Your task to perform on an android device: turn off location history Image 0: 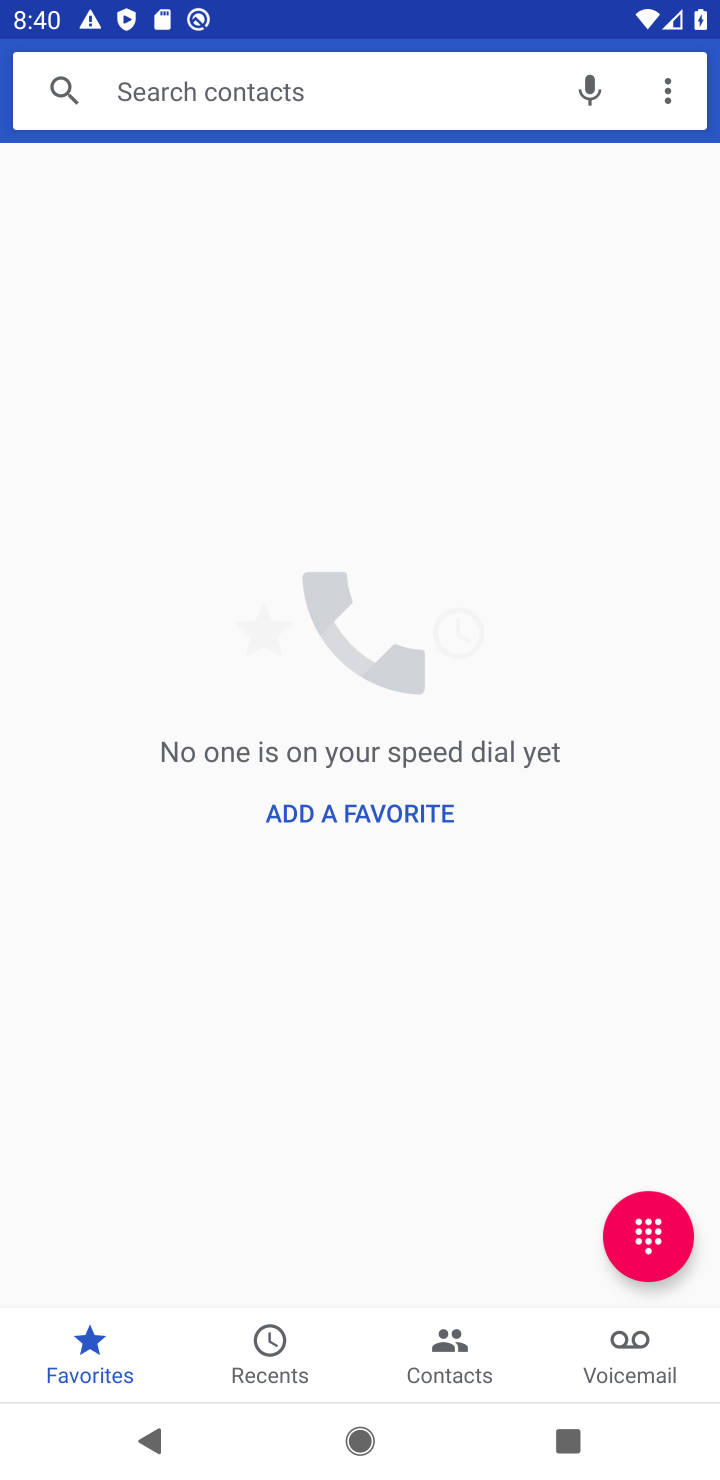
Step 0: press home button
Your task to perform on an android device: turn off location history Image 1: 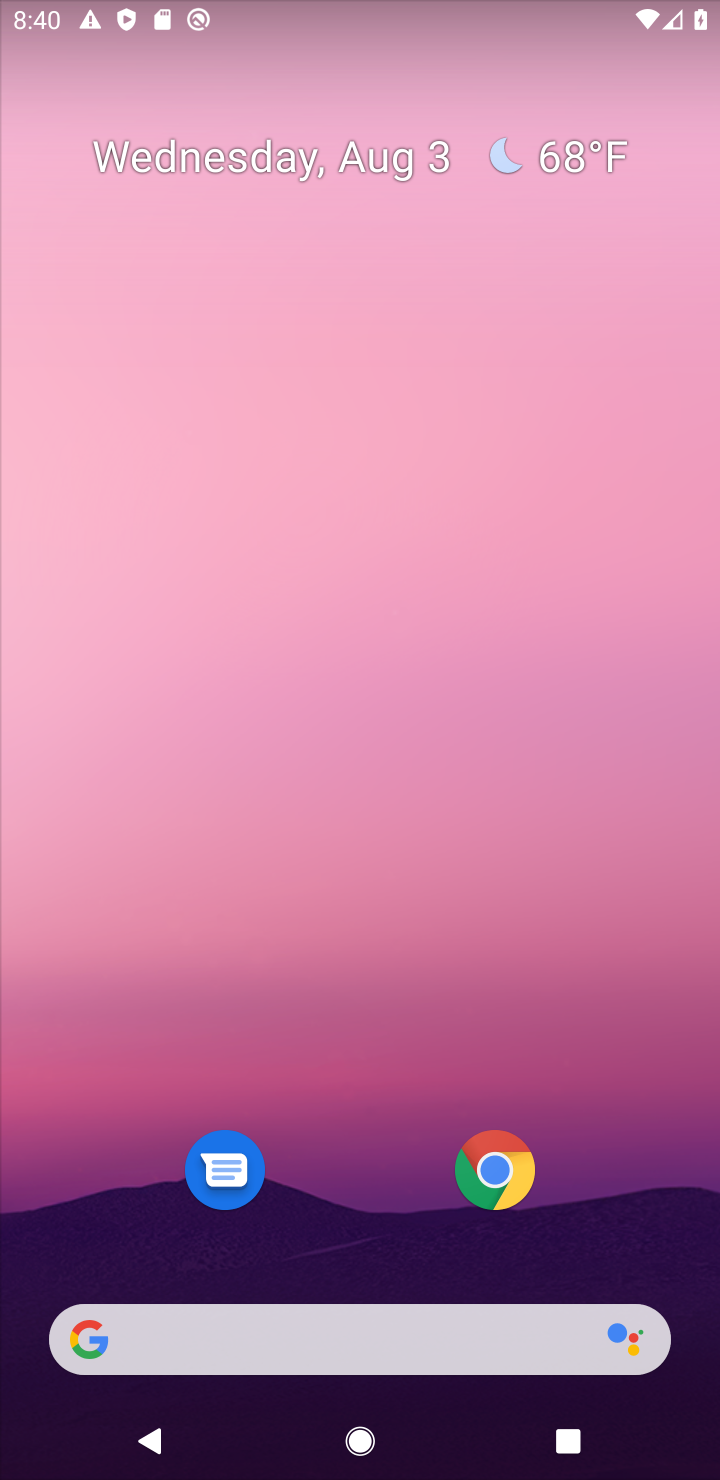
Step 1: drag from (630, 1228) to (576, 480)
Your task to perform on an android device: turn off location history Image 2: 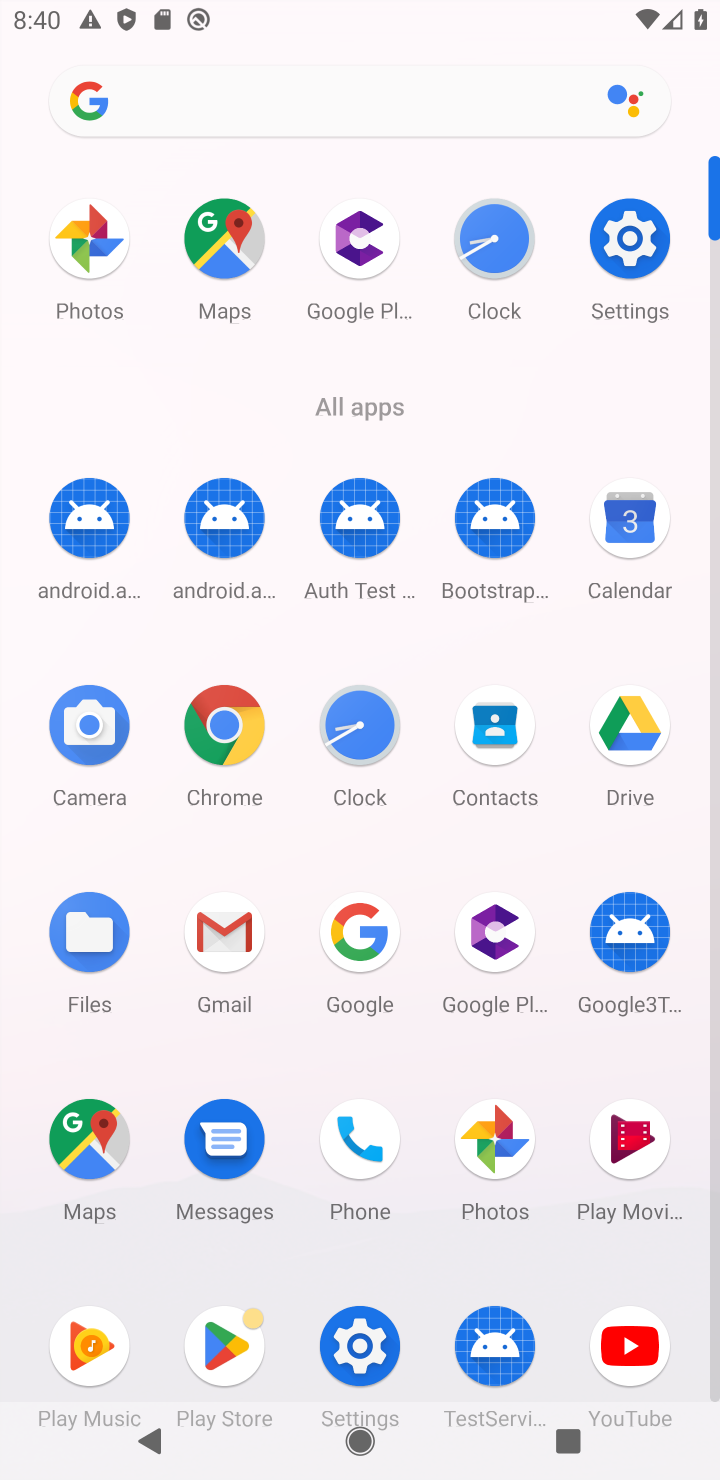
Step 2: click (357, 1341)
Your task to perform on an android device: turn off location history Image 3: 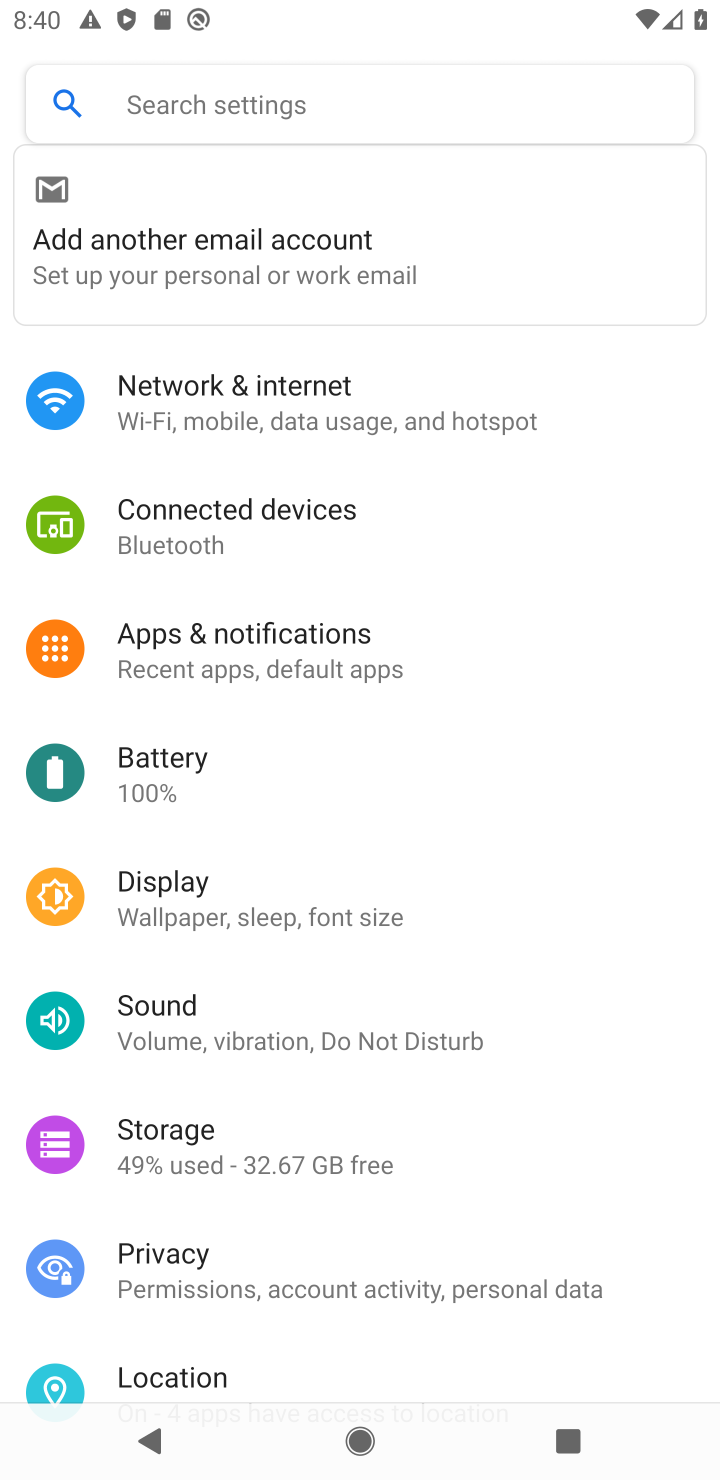
Step 3: drag from (640, 1313) to (582, 557)
Your task to perform on an android device: turn off location history Image 4: 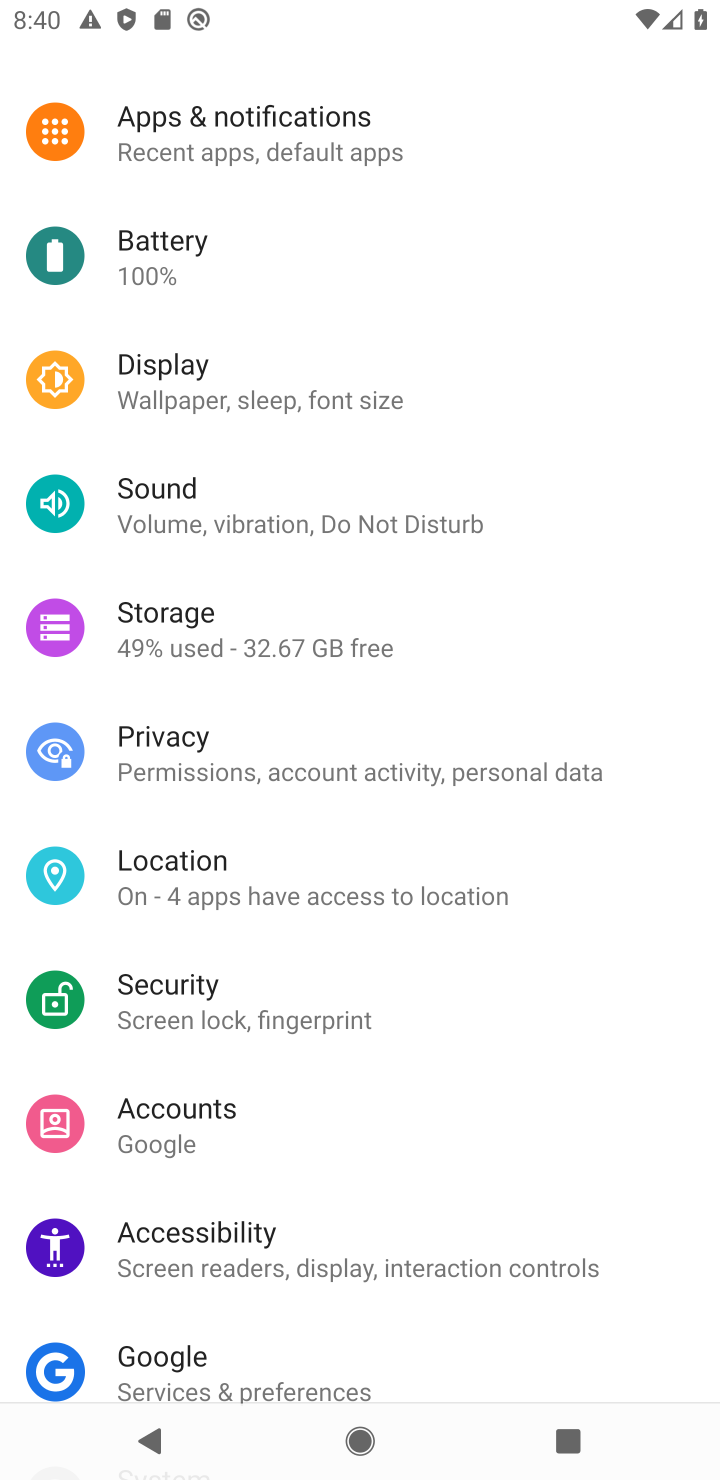
Step 4: click (195, 858)
Your task to perform on an android device: turn off location history Image 5: 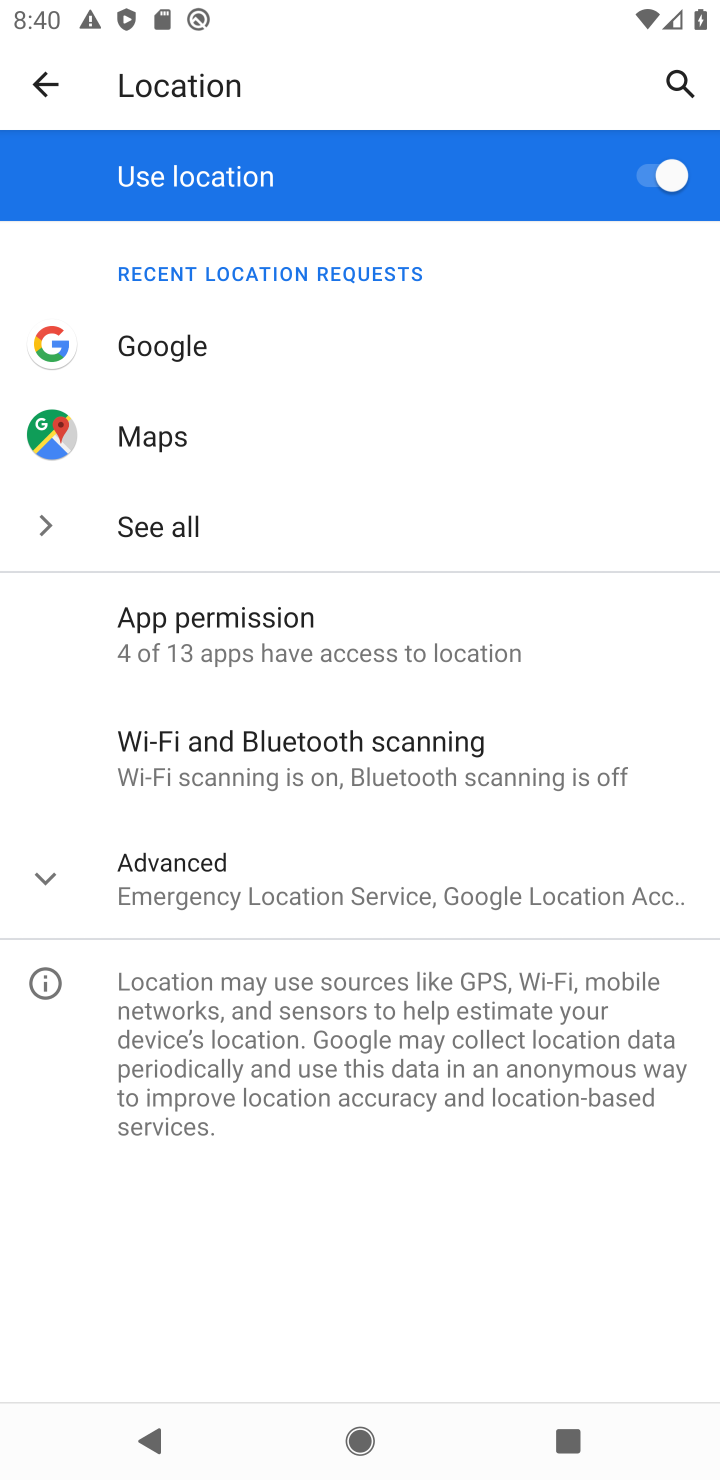
Step 5: click (118, 874)
Your task to perform on an android device: turn off location history Image 6: 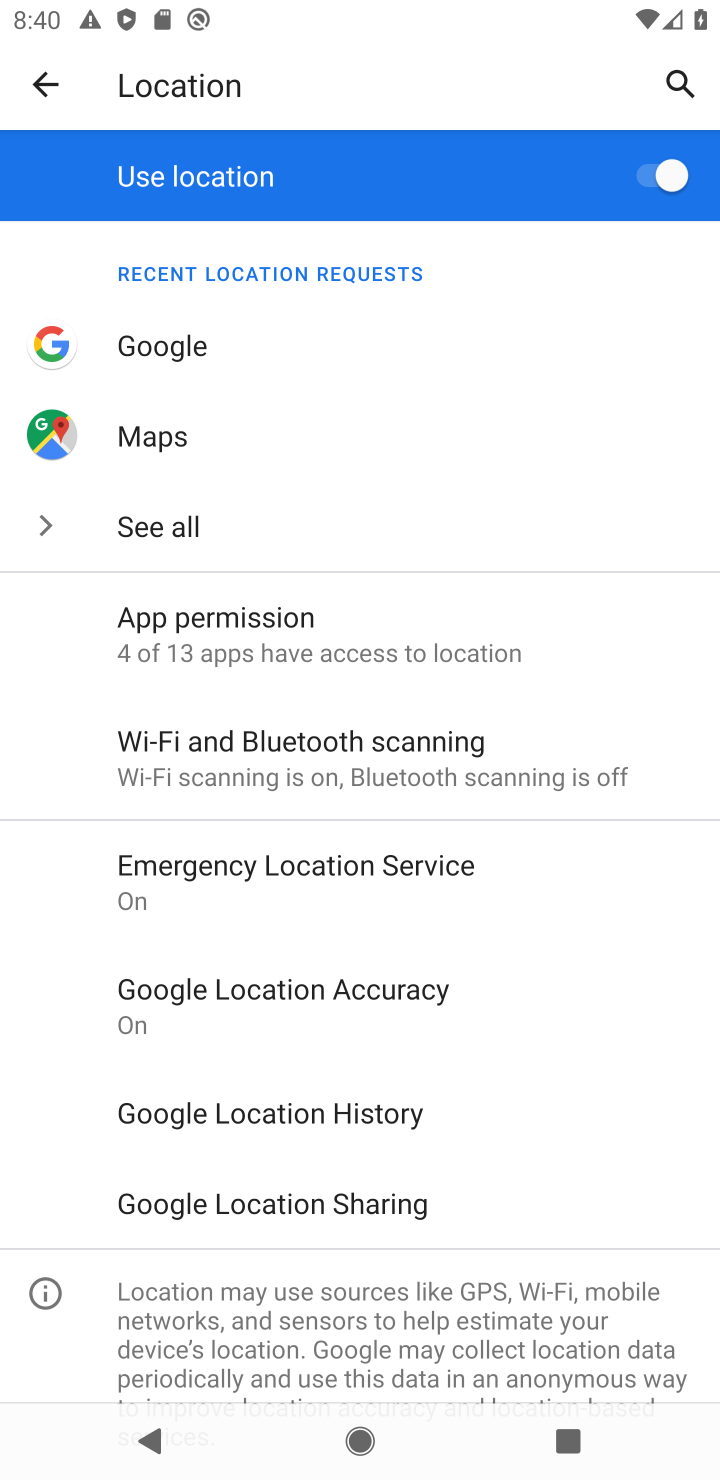
Step 6: click (284, 1116)
Your task to perform on an android device: turn off location history Image 7: 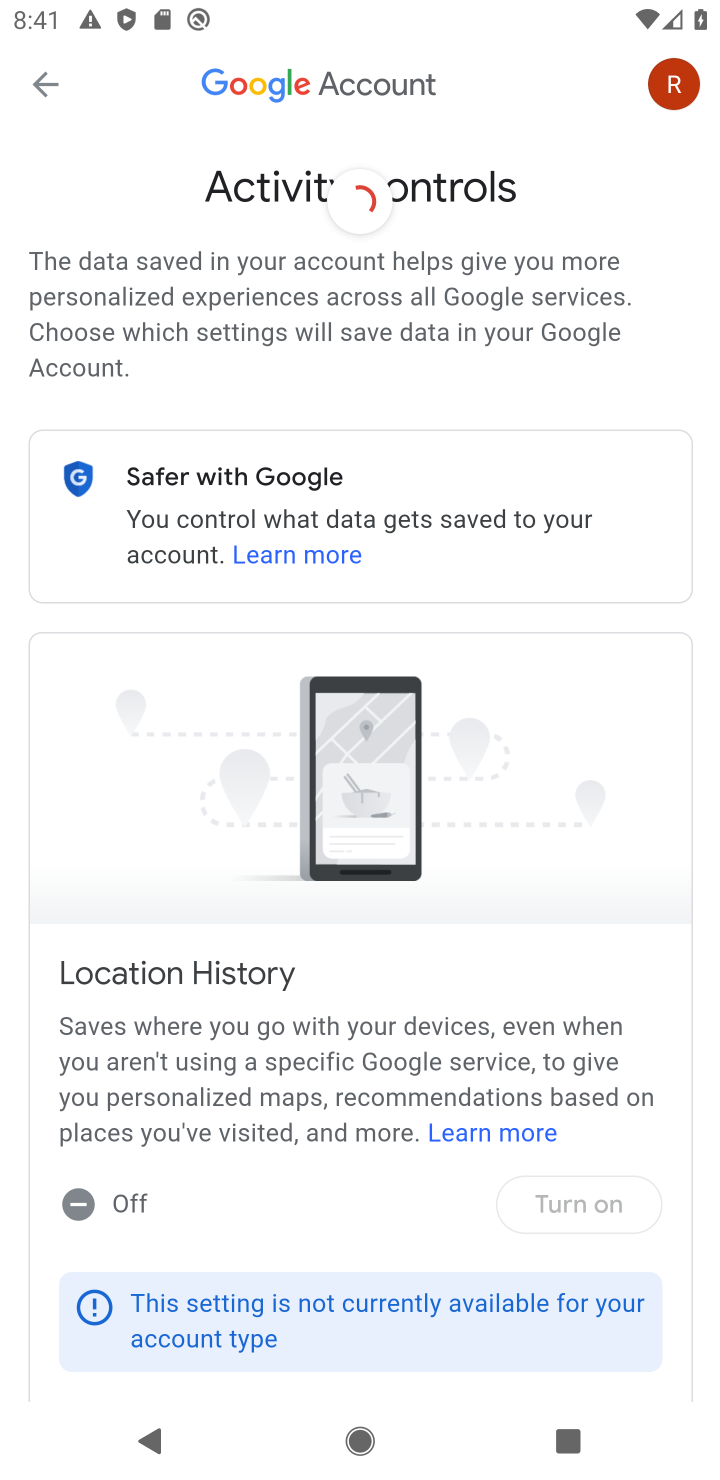
Step 7: task complete